Your task to perform on an android device: open app "Roku - Official Remote Control" (install if not already installed) and go to login screen Image 0: 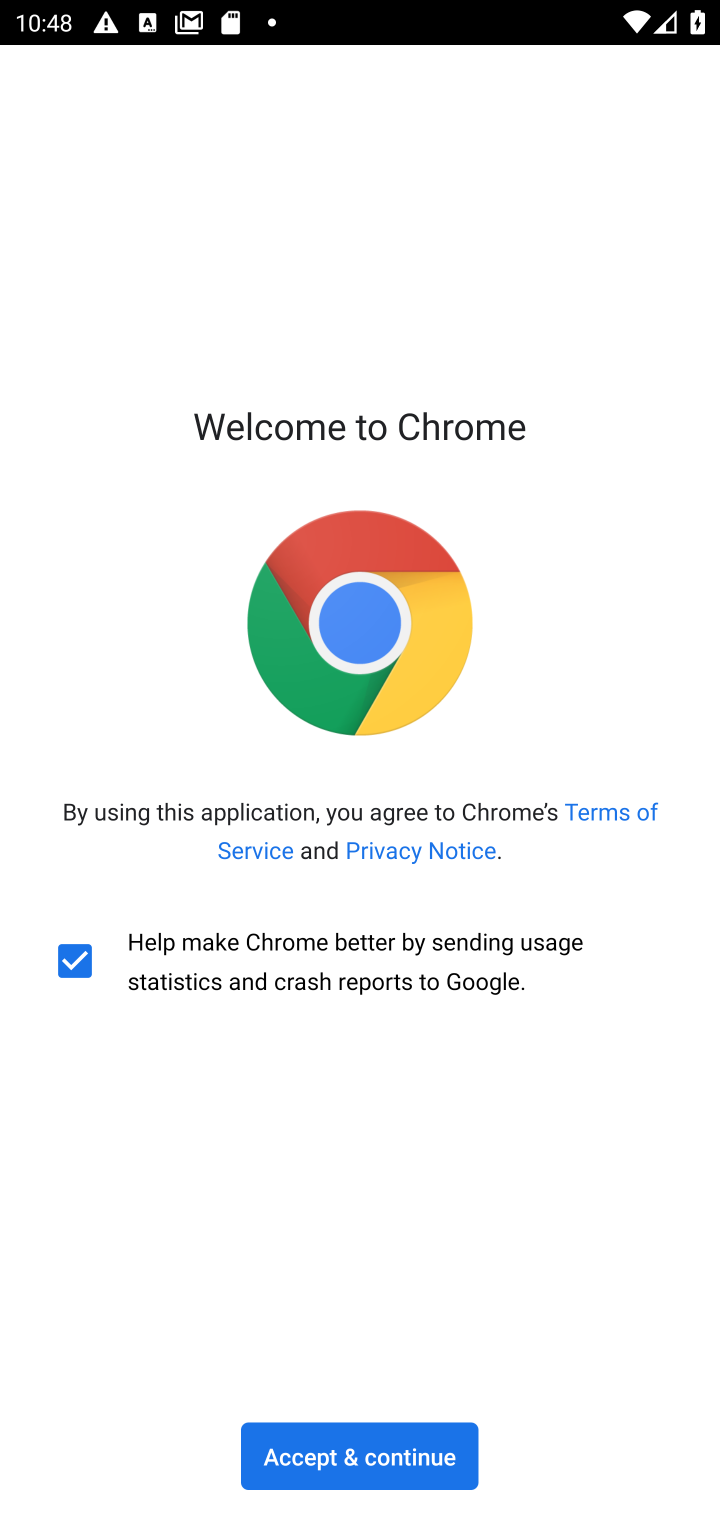
Step 0: press home button
Your task to perform on an android device: open app "Roku - Official Remote Control" (install if not already installed) and go to login screen Image 1: 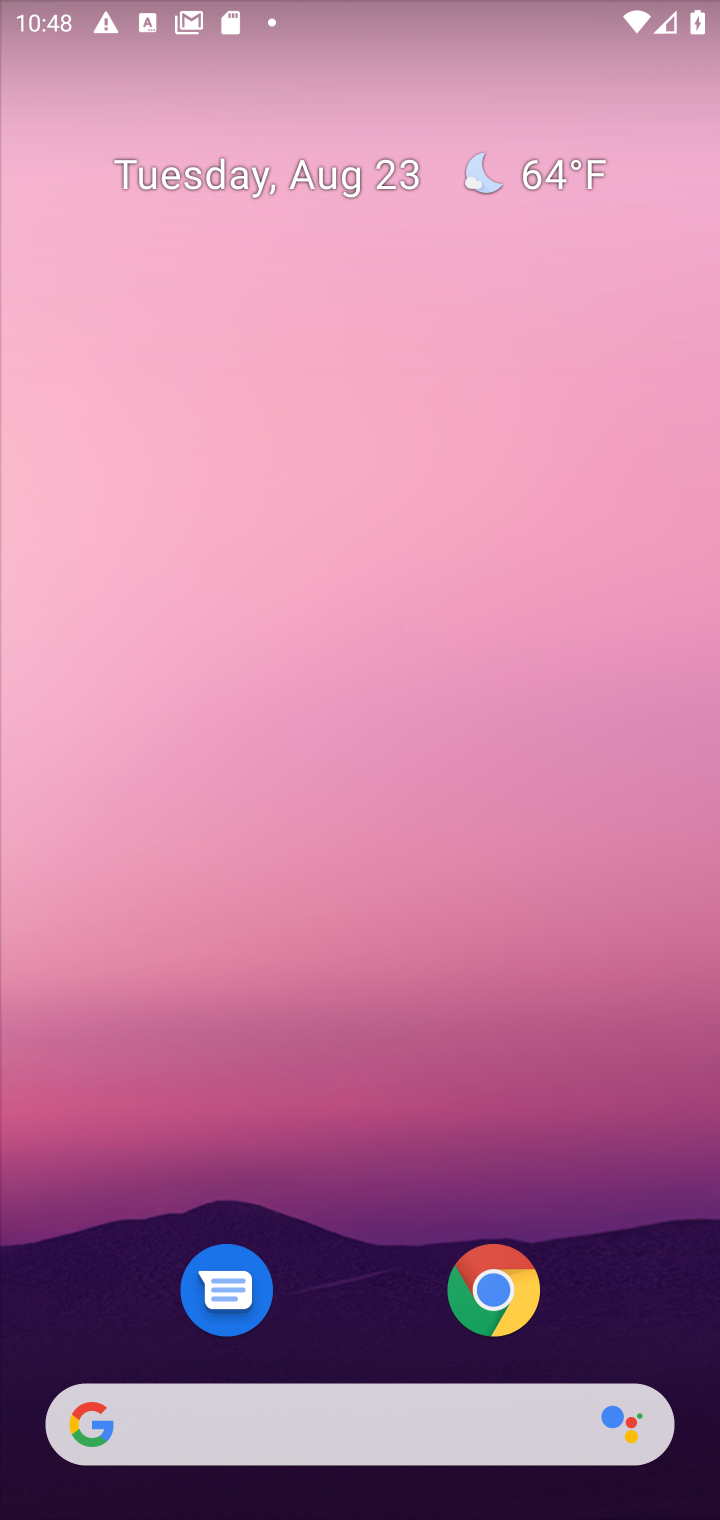
Step 1: drag from (344, 1307) to (300, 148)
Your task to perform on an android device: open app "Roku - Official Remote Control" (install if not already installed) and go to login screen Image 2: 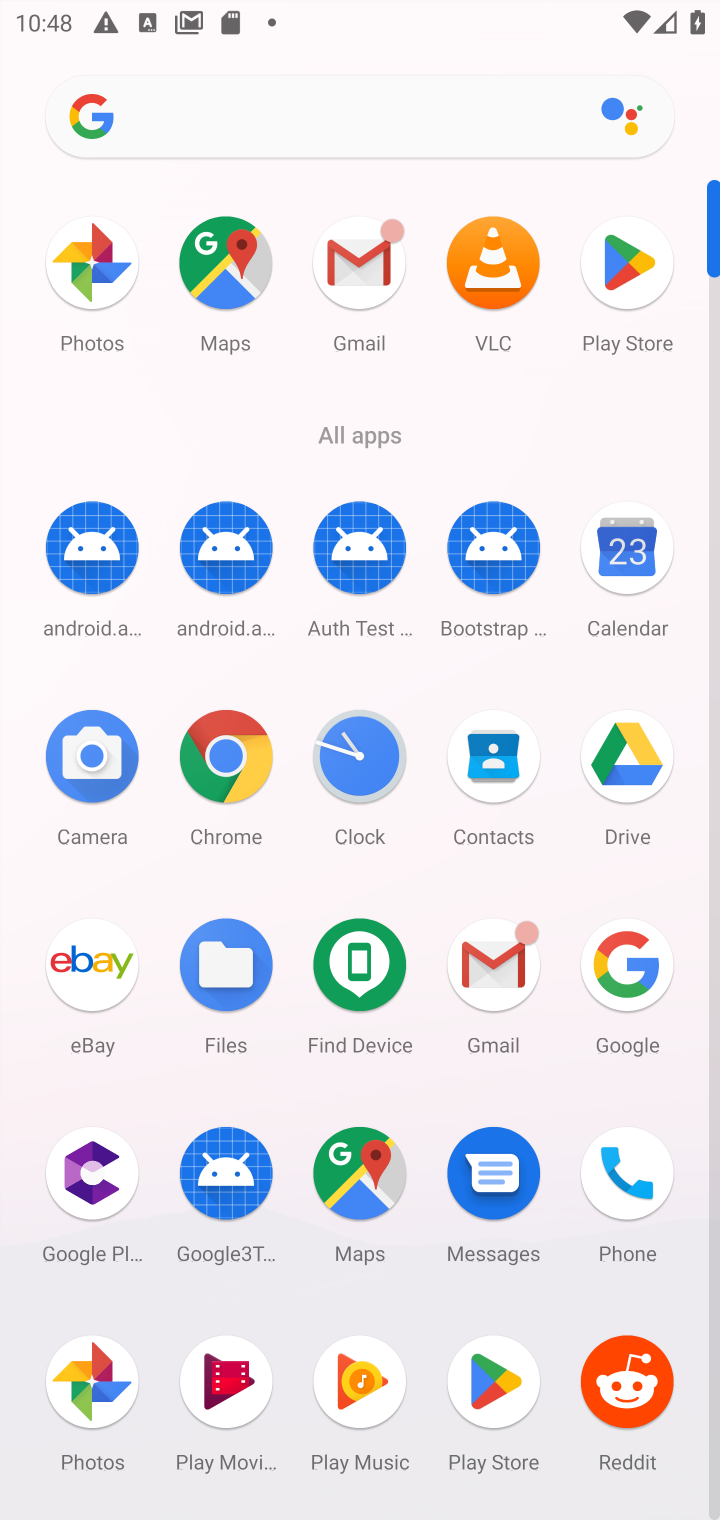
Step 2: click (627, 270)
Your task to perform on an android device: open app "Roku - Official Remote Control" (install if not already installed) and go to login screen Image 3: 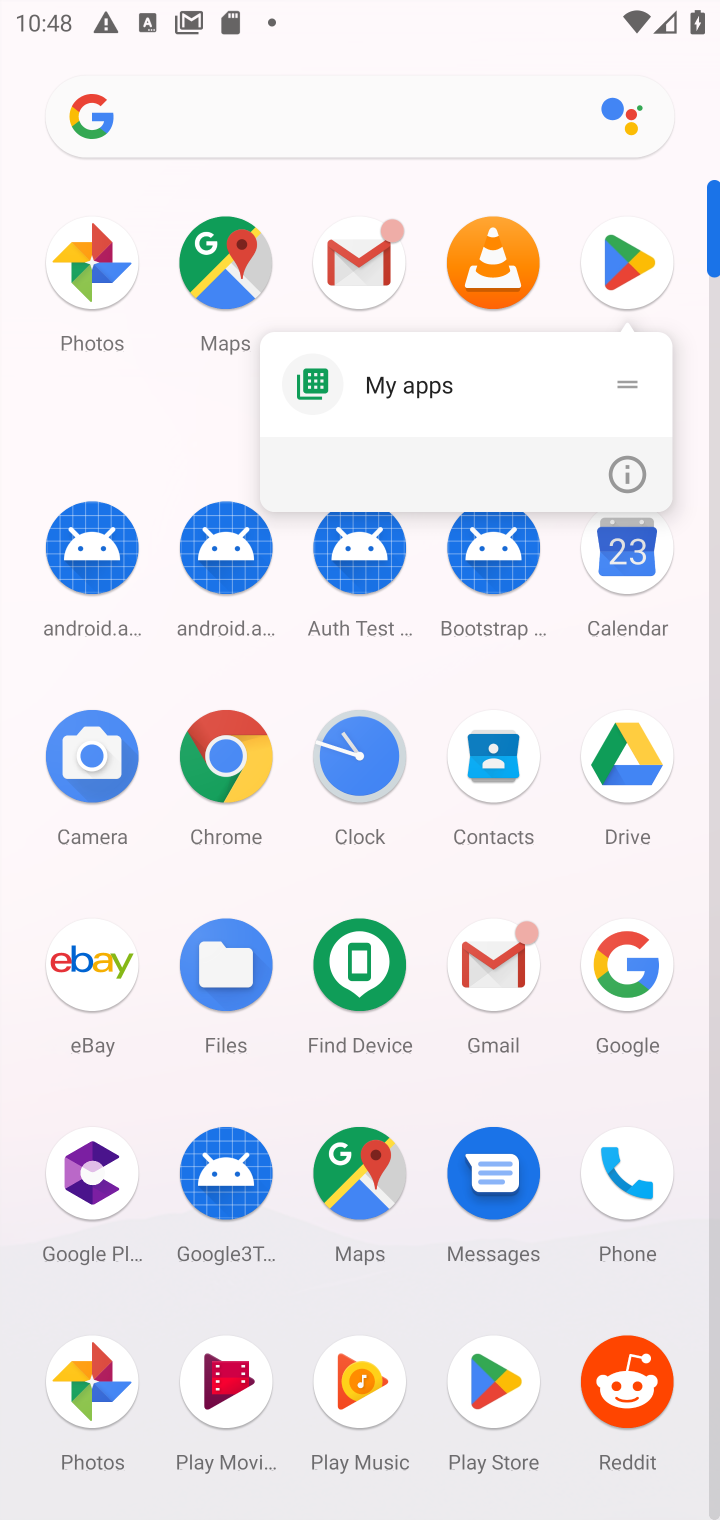
Step 3: click (627, 263)
Your task to perform on an android device: open app "Roku - Official Remote Control" (install if not already installed) and go to login screen Image 4: 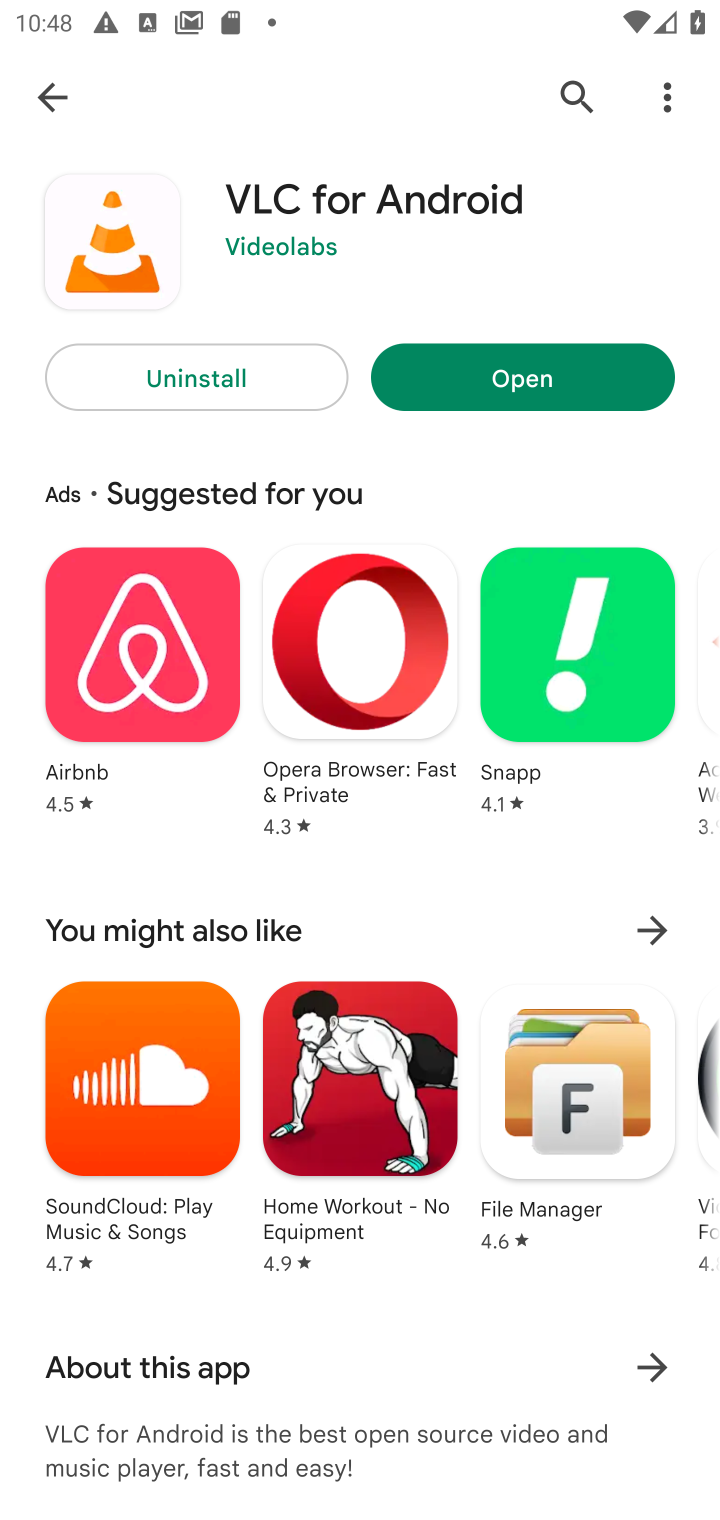
Step 4: click (566, 82)
Your task to perform on an android device: open app "Roku - Official Remote Control" (install if not already installed) and go to login screen Image 5: 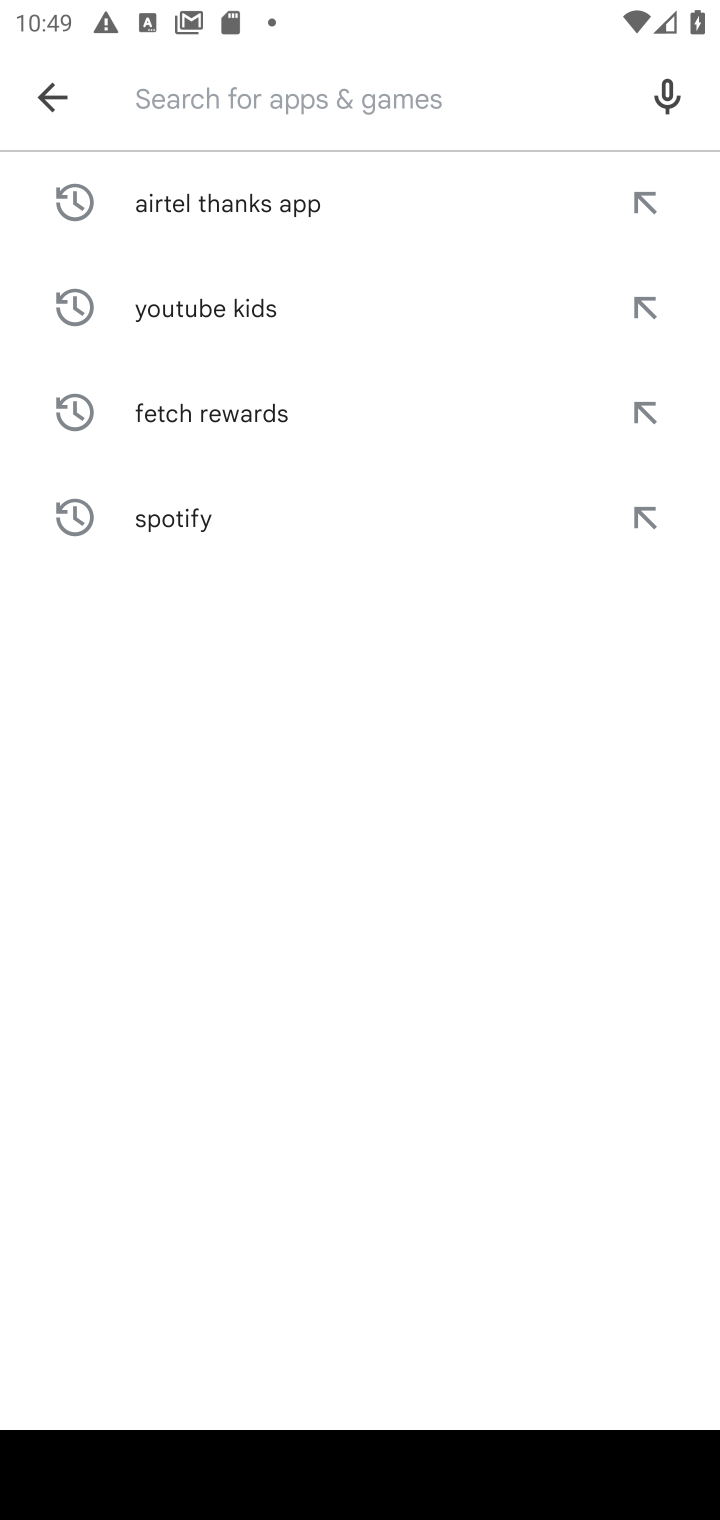
Step 5: type "Roku - Official Remote Control"
Your task to perform on an android device: open app "Roku - Official Remote Control" (install if not already installed) and go to login screen Image 6: 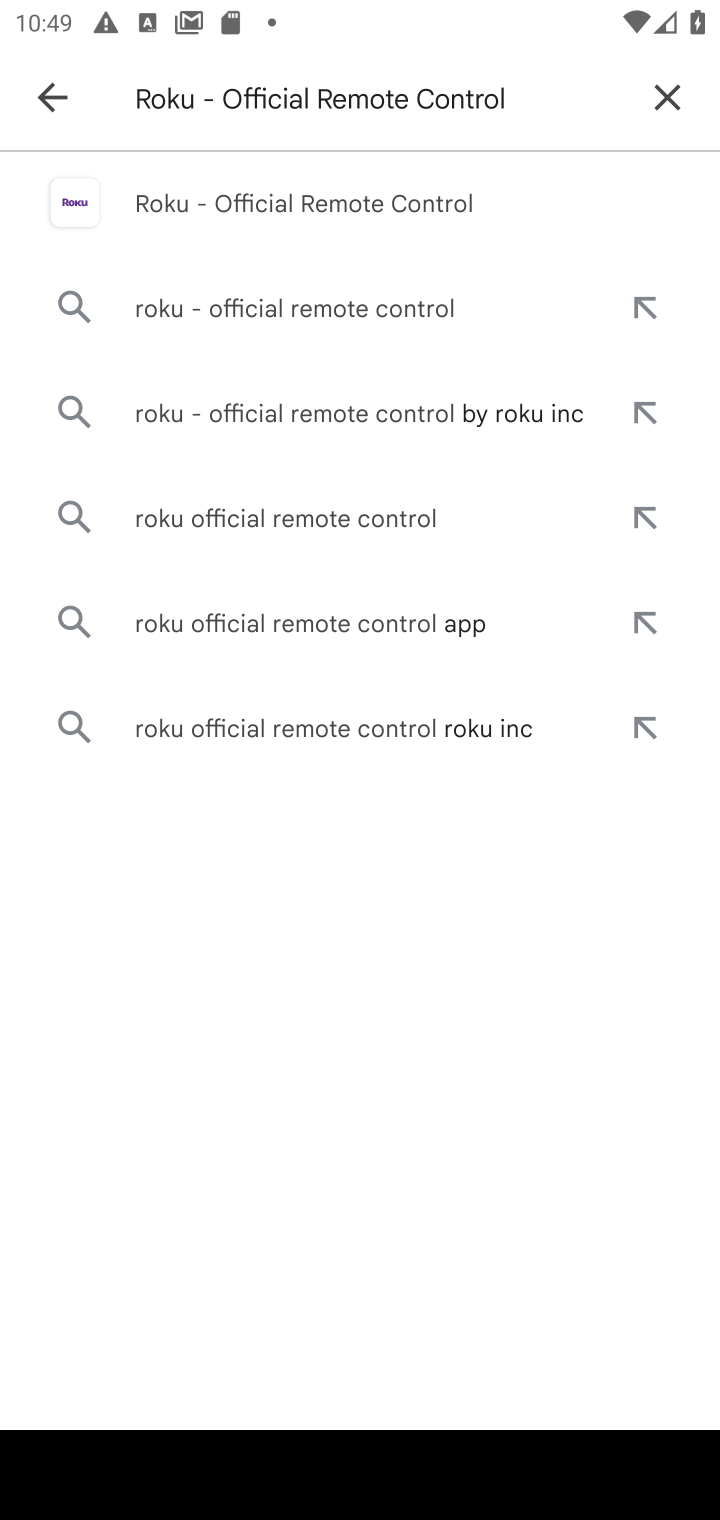
Step 6: click (408, 189)
Your task to perform on an android device: open app "Roku - Official Remote Control" (install if not already installed) and go to login screen Image 7: 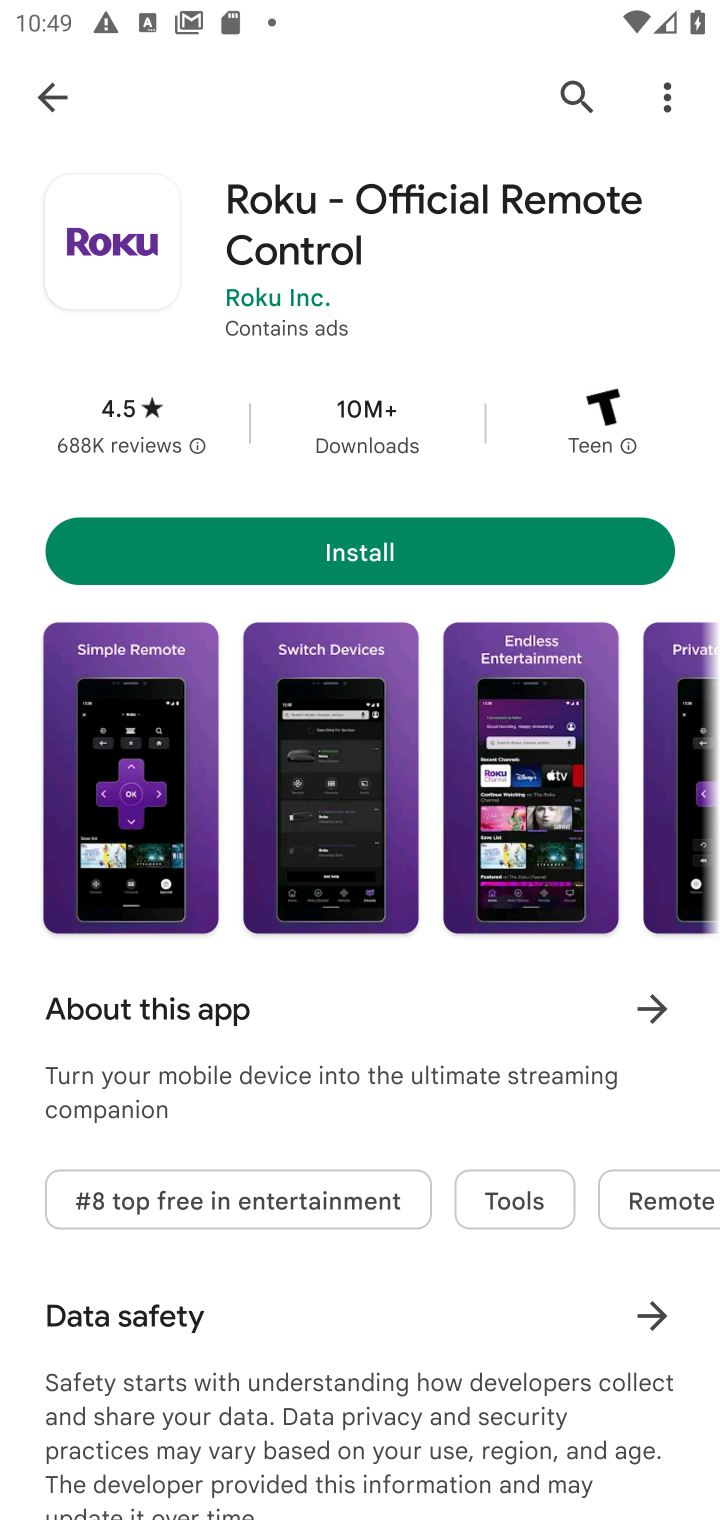
Step 7: click (340, 541)
Your task to perform on an android device: open app "Roku - Official Remote Control" (install if not already installed) and go to login screen Image 8: 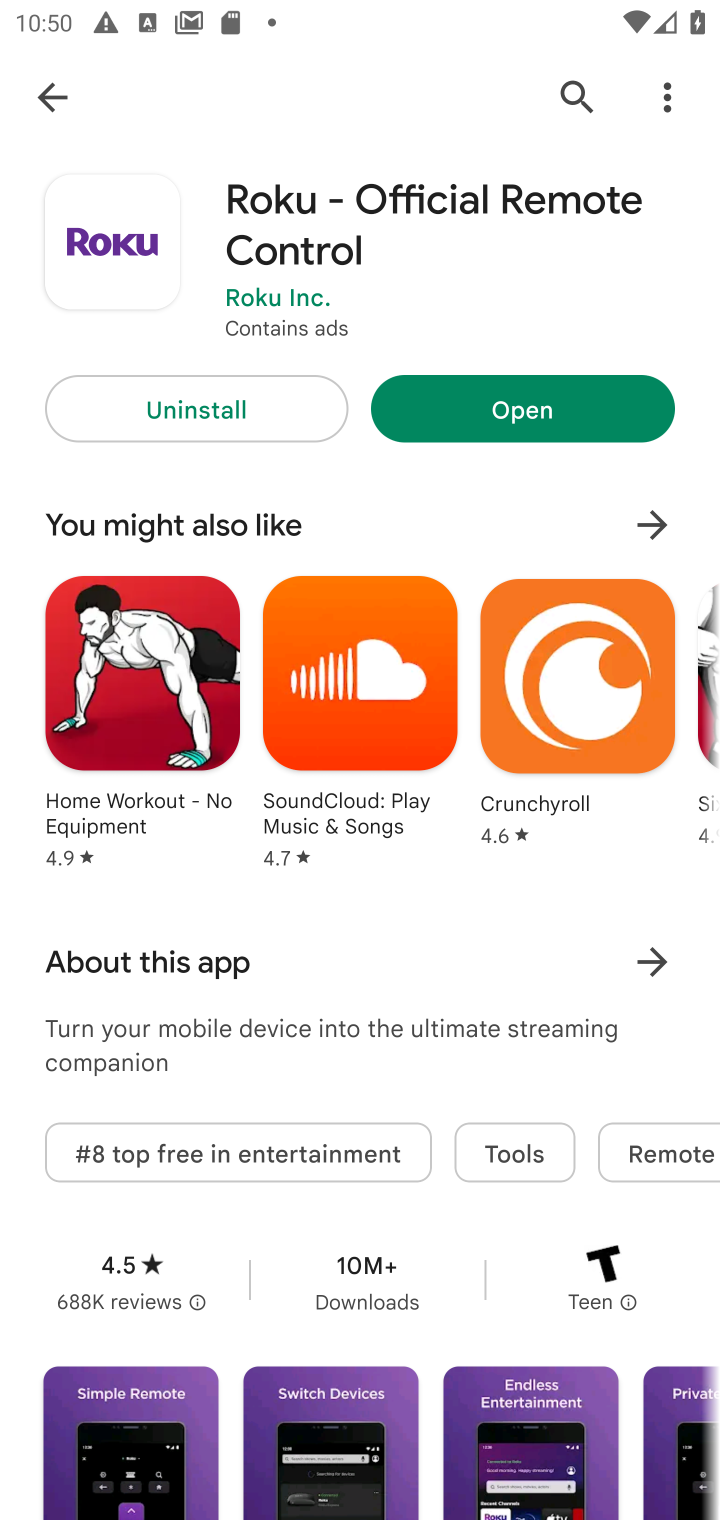
Step 8: click (550, 403)
Your task to perform on an android device: open app "Roku - Official Remote Control" (install if not already installed) and go to login screen Image 9: 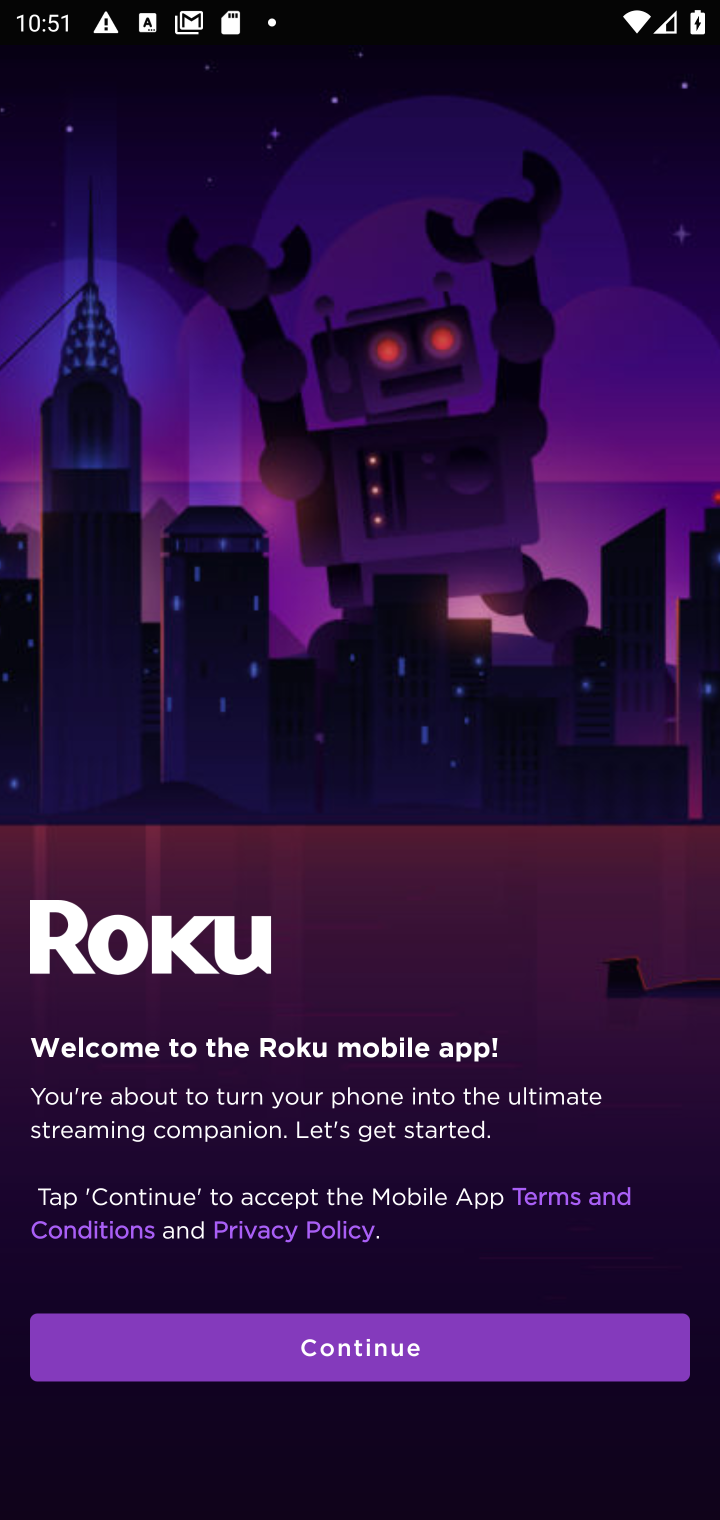
Step 9: task complete